Your task to perform on an android device: delete a single message in the gmail app Image 0: 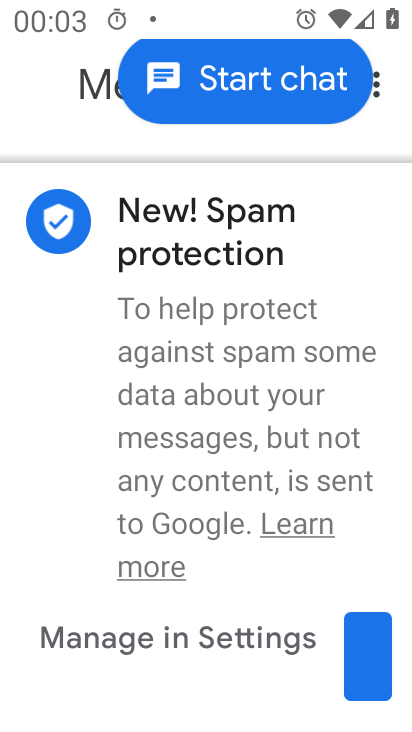
Step 0: press home button
Your task to perform on an android device: delete a single message in the gmail app Image 1: 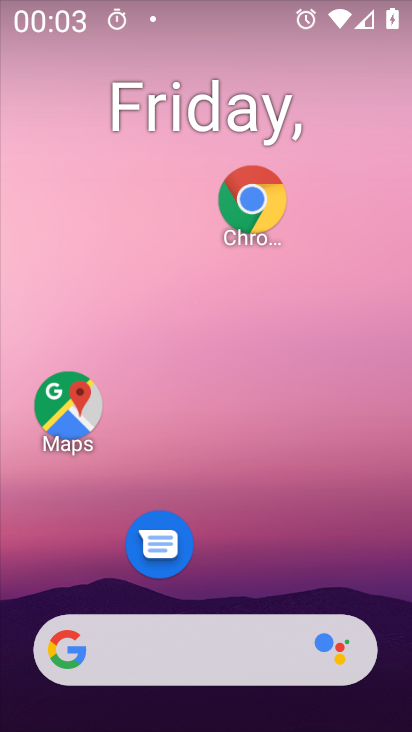
Step 1: drag from (206, 603) to (239, 118)
Your task to perform on an android device: delete a single message in the gmail app Image 2: 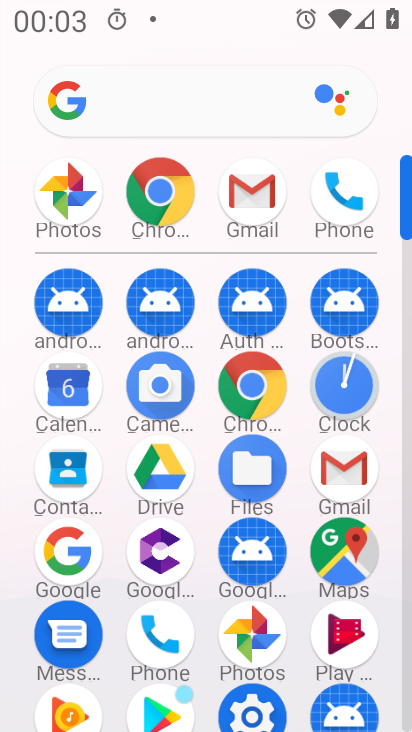
Step 2: click (240, 201)
Your task to perform on an android device: delete a single message in the gmail app Image 3: 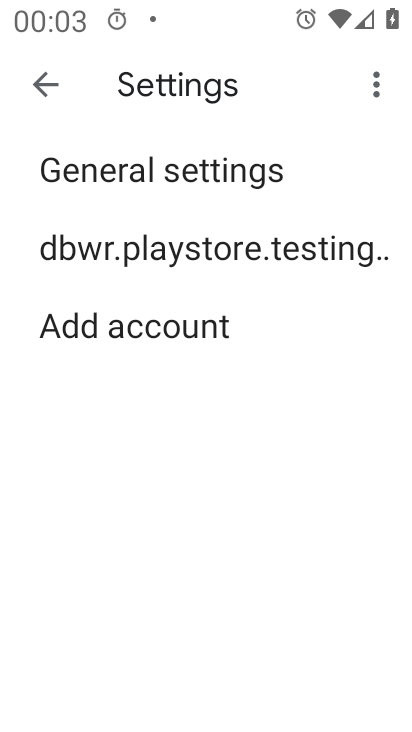
Step 3: click (177, 260)
Your task to perform on an android device: delete a single message in the gmail app Image 4: 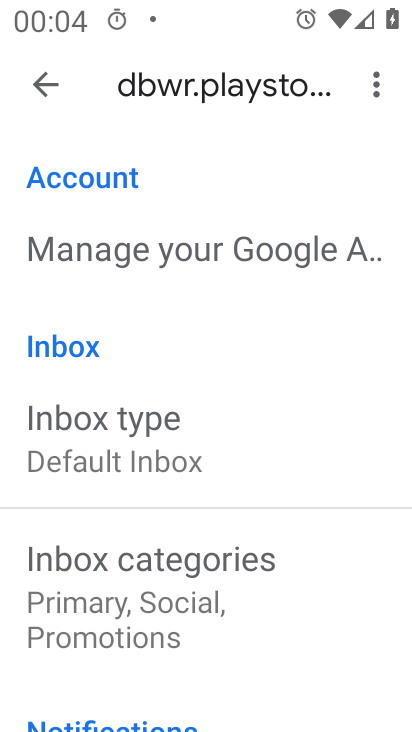
Step 4: click (52, 62)
Your task to perform on an android device: delete a single message in the gmail app Image 5: 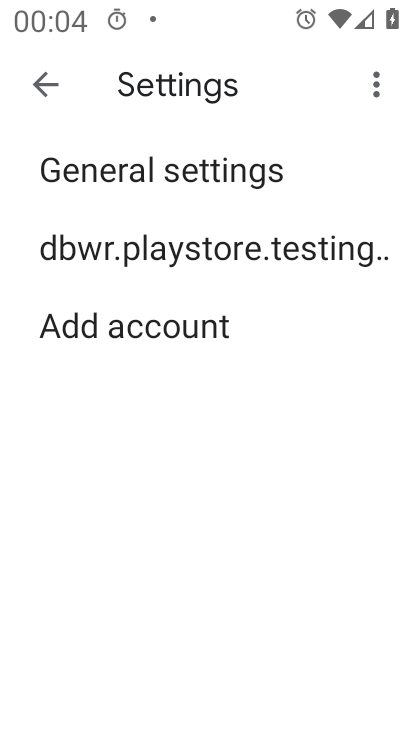
Step 5: click (52, 62)
Your task to perform on an android device: delete a single message in the gmail app Image 6: 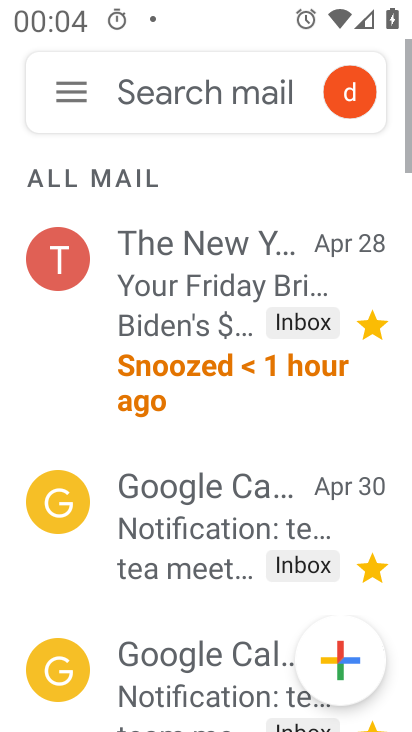
Step 6: click (72, 259)
Your task to perform on an android device: delete a single message in the gmail app Image 7: 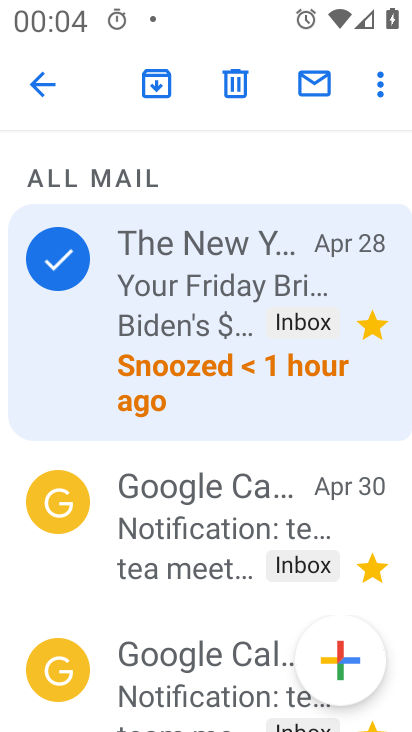
Step 7: click (251, 66)
Your task to perform on an android device: delete a single message in the gmail app Image 8: 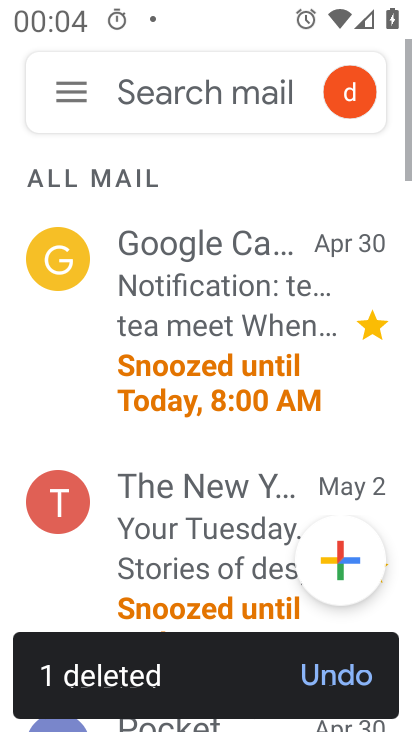
Step 8: task complete